Your task to perform on an android device: change the clock display to digital Image 0: 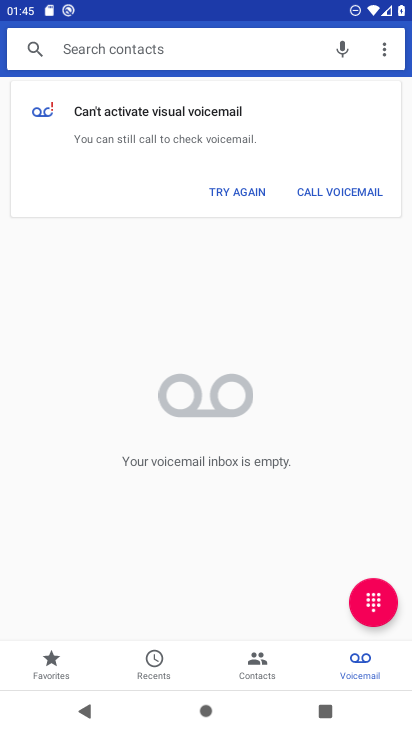
Step 0: press home button
Your task to perform on an android device: change the clock display to digital Image 1: 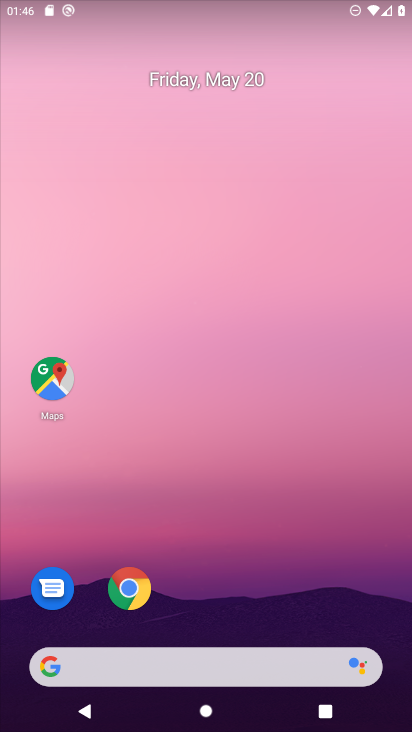
Step 1: drag from (368, 611) to (288, 68)
Your task to perform on an android device: change the clock display to digital Image 2: 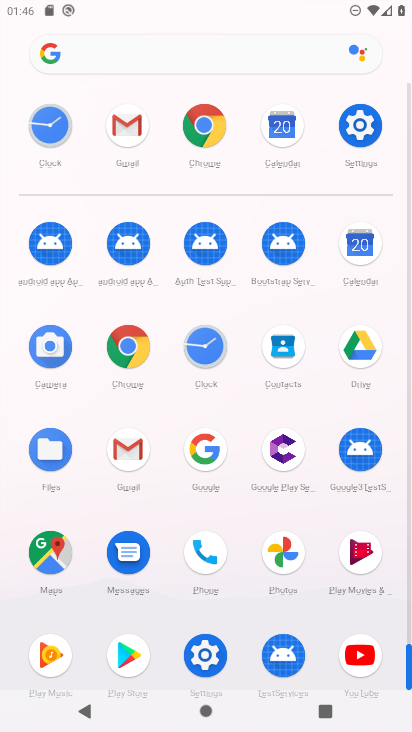
Step 2: click (206, 348)
Your task to perform on an android device: change the clock display to digital Image 3: 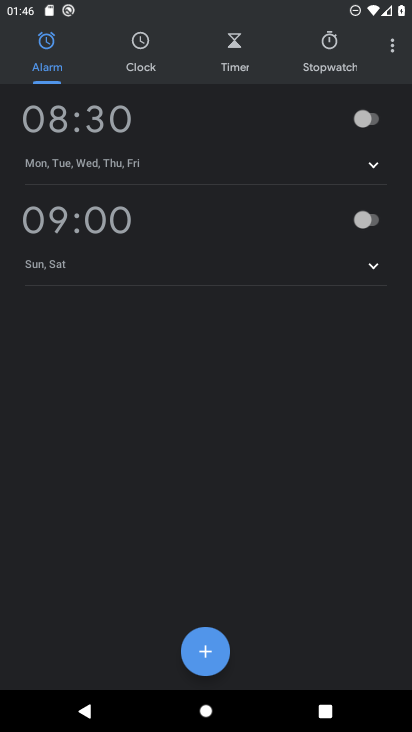
Step 3: click (388, 51)
Your task to perform on an android device: change the clock display to digital Image 4: 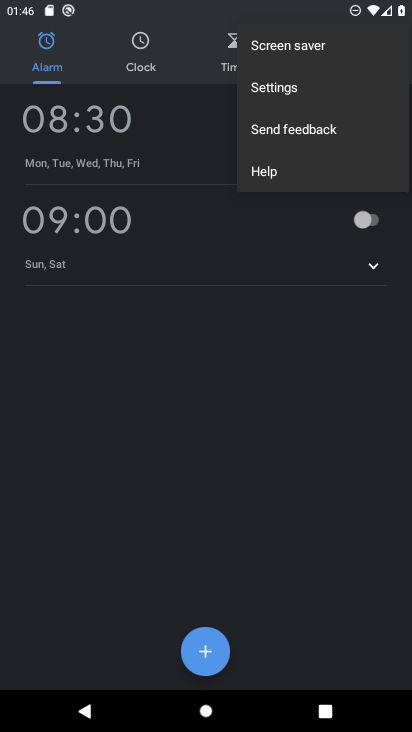
Step 4: click (266, 85)
Your task to perform on an android device: change the clock display to digital Image 5: 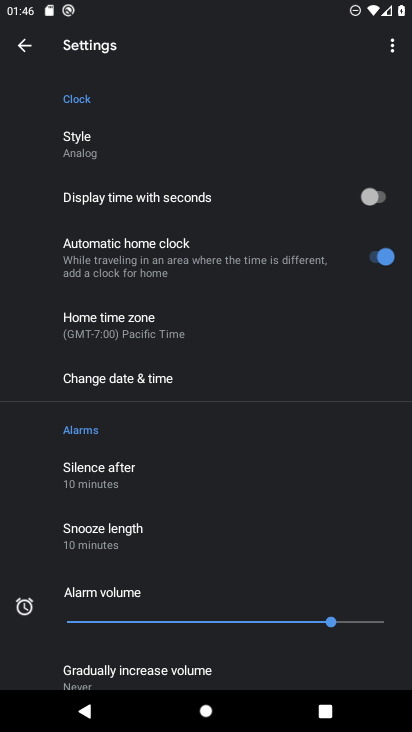
Step 5: click (88, 143)
Your task to perform on an android device: change the clock display to digital Image 6: 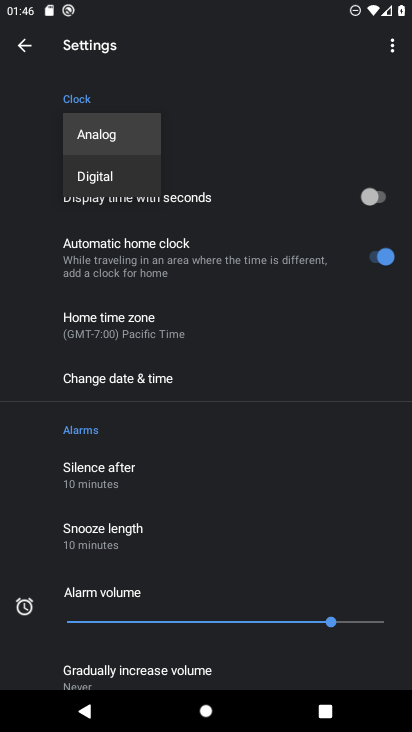
Step 6: click (101, 174)
Your task to perform on an android device: change the clock display to digital Image 7: 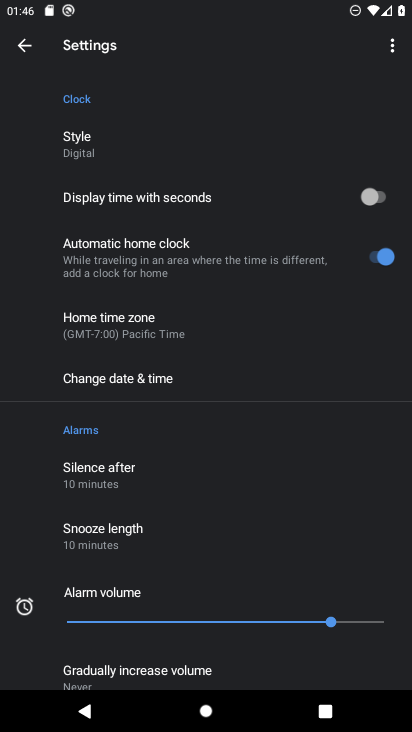
Step 7: task complete